Your task to perform on an android device: check storage Image 0: 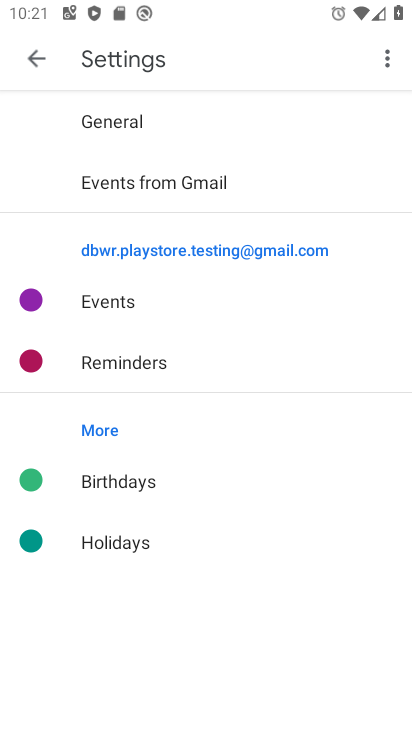
Step 0: press home button
Your task to perform on an android device: check storage Image 1: 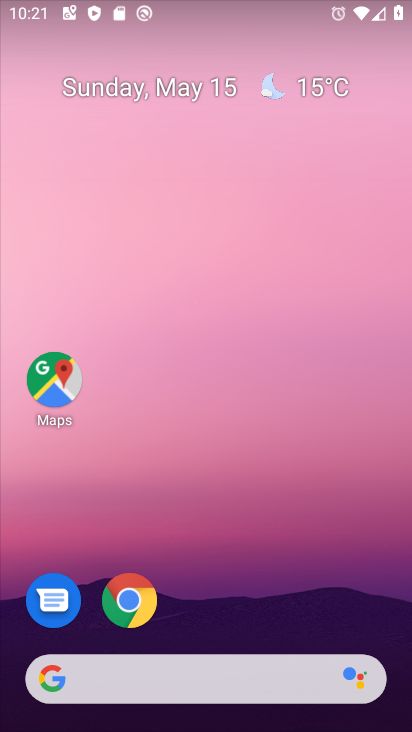
Step 1: drag from (362, 599) to (380, 115)
Your task to perform on an android device: check storage Image 2: 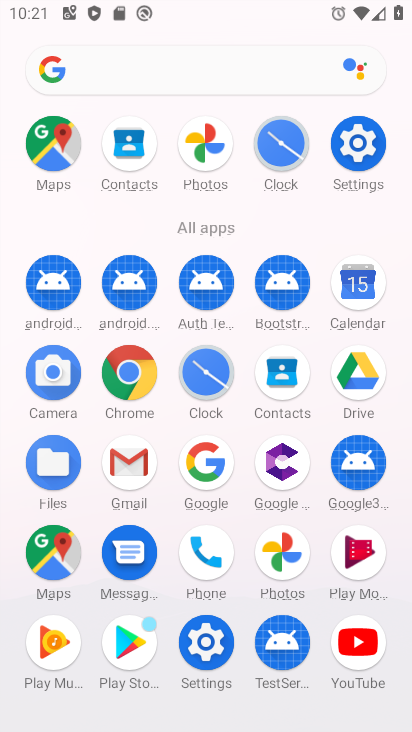
Step 2: click (372, 152)
Your task to perform on an android device: check storage Image 3: 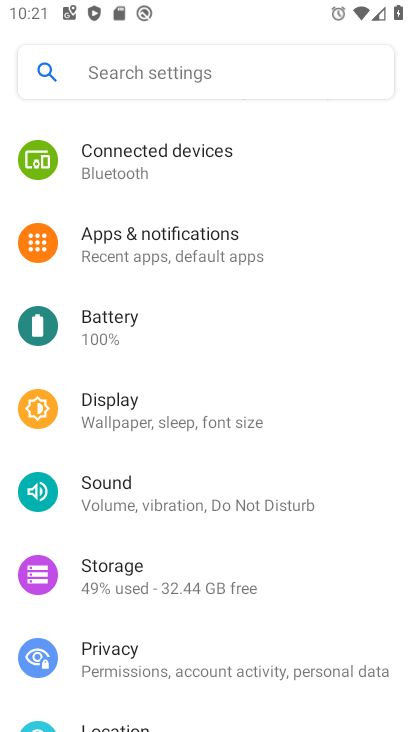
Step 3: click (193, 572)
Your task to perform on an android device: check storage Image 4: 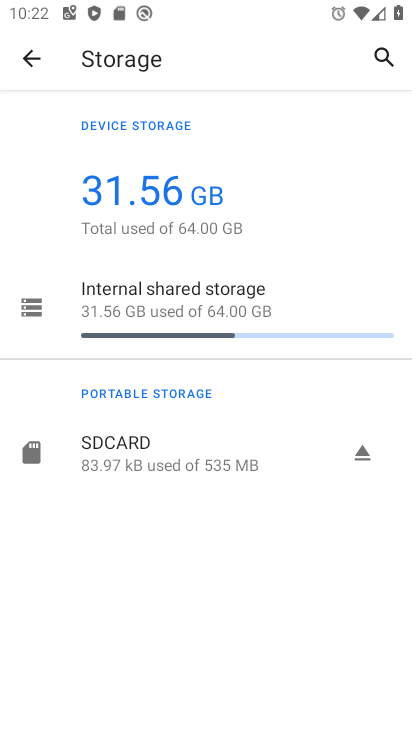
Step 4: task complete